Your task to perform on an android device: Open the calendar and show me this week's events? Image 0: 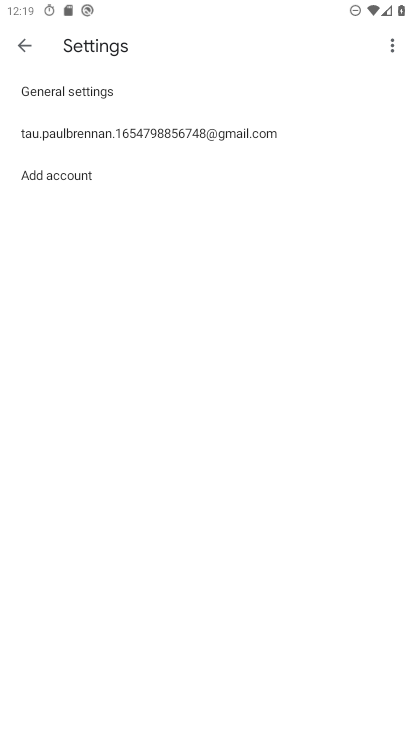
Step 0: press home button
Your task to perform on an android device: Open the calendar and show me this week's events? Image 1: 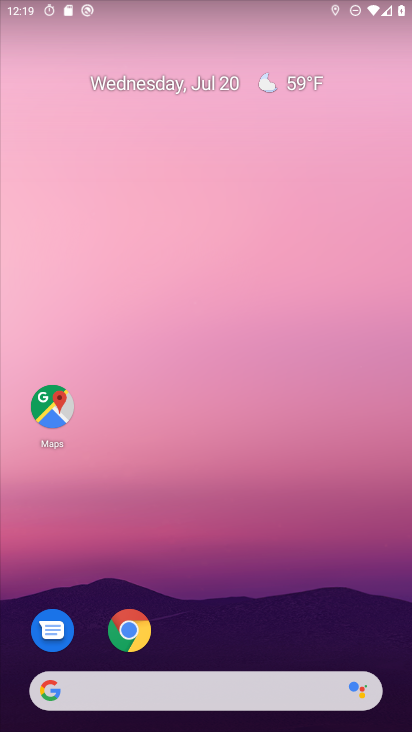
Step 1: drag from (263, 627) to (234, 0)
Your task to perform on an android device: Open the calendar and show me this week's events? Image 2: 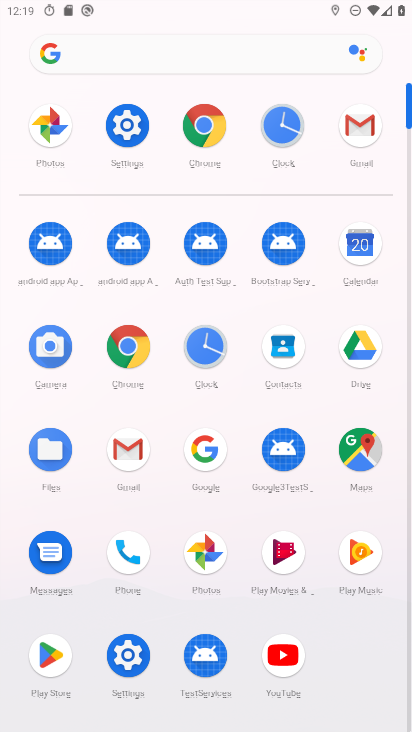
Step 2: click (370, 235)
Your task to perform on an android device: Open the calendar and show me this week's events? Image 3: 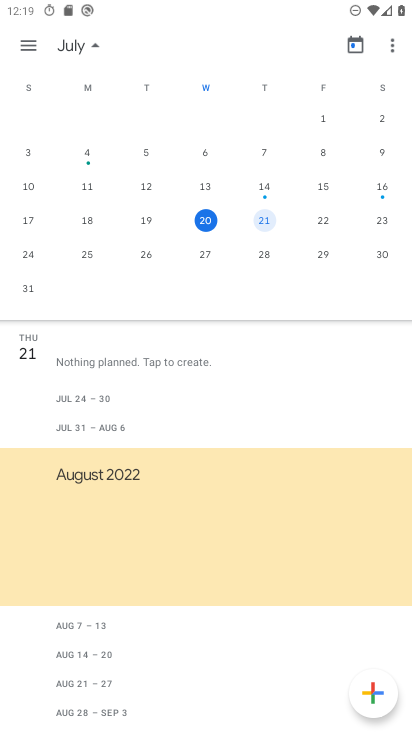
Step 3: click (91, 42)
Your task to perform on an android device: Open the calendar and show me this week's events? Image 4: 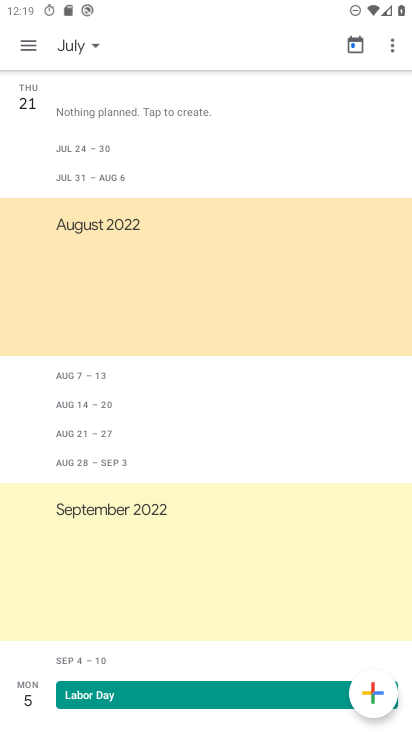
Step 4: click (95, 44)
Your task to perform on an android device: Open the calendar and show me this week's events? Image 5: 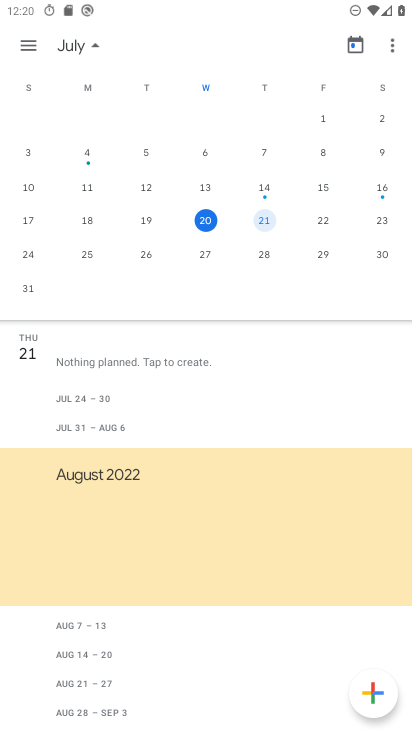
Step 5: click (385, 219)
Your task to perform on an android device: Open the calendar and show me this week's events? Image 6: 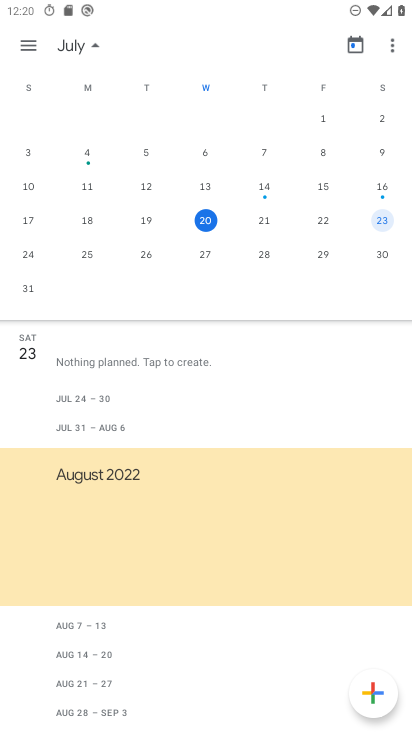
Step 6: click (207, 215)
Your task to perform on an android device: Open the calendar and show me this week's events? Image 7: 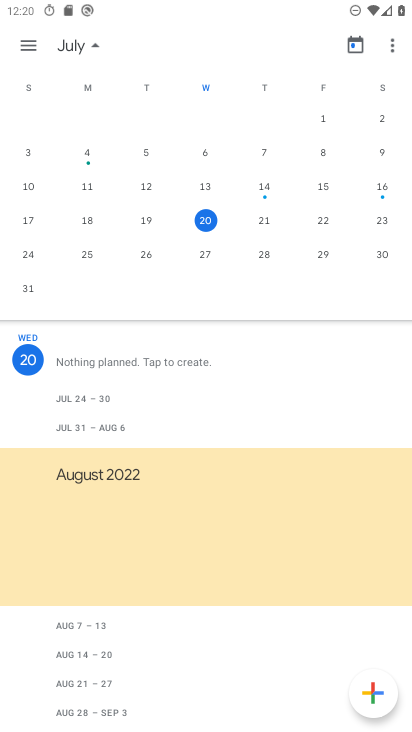
Step 7: click (32, 42)
Your task to perform on an android device: Open the calendar and show me this week's events? Image 8: 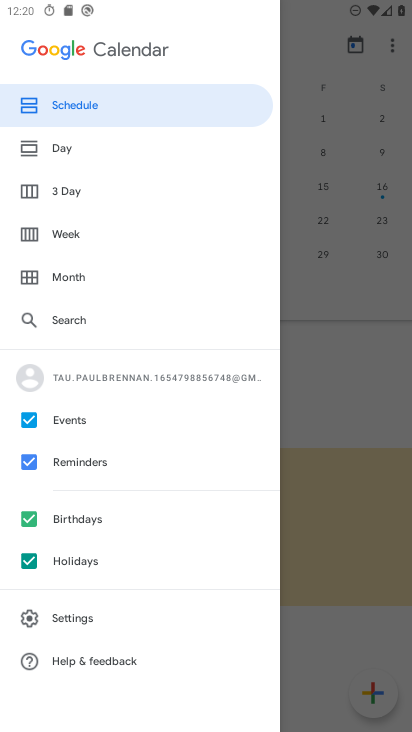
Step 8: click (48, 234)
Your task to perform on an android device: Open the calendar and show me this week's events? Image 9: 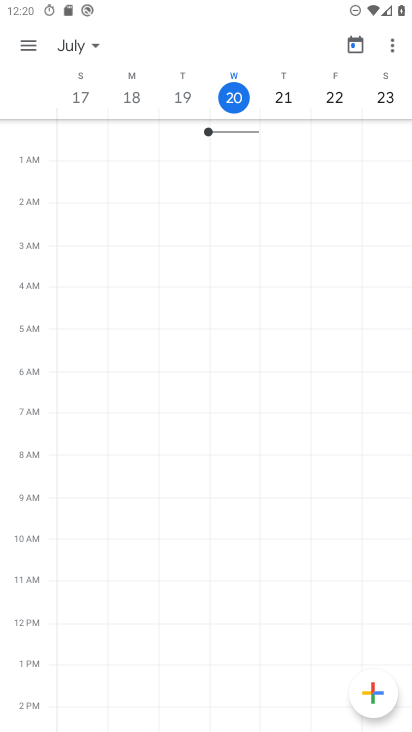
Step 9: task complete